Your task to perform on an android device: Go to calendar. Show me events next week Image 0: 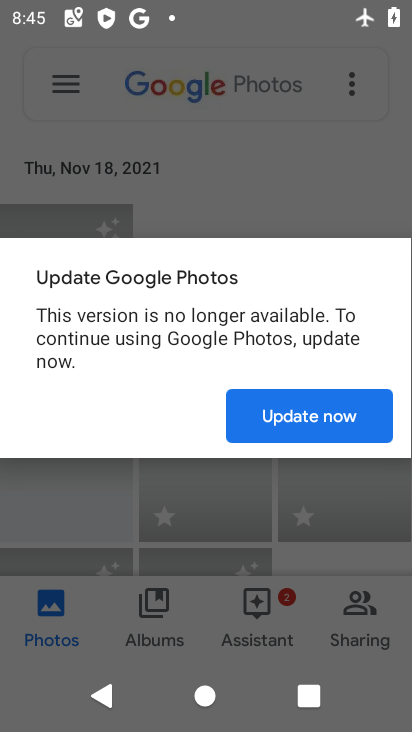
Step 0: press home button
Your task to perform on an android device: Go to calendar. Show me events next week Image 1: 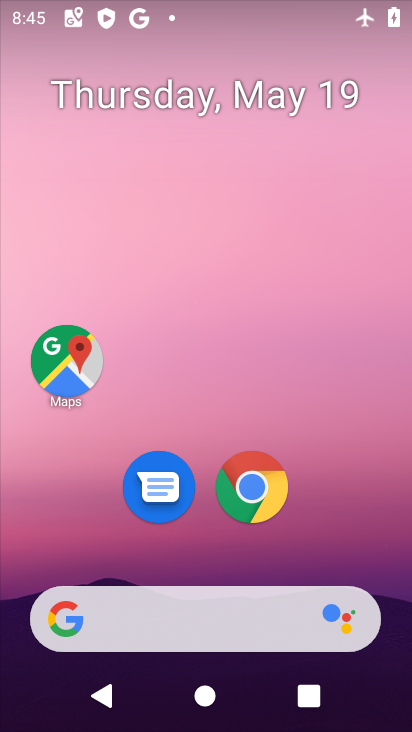
Step 1: drag from (216, 553) to (357, 4)
Your task to perform on an android device: Go to calendar. Show me events next week Image 2: 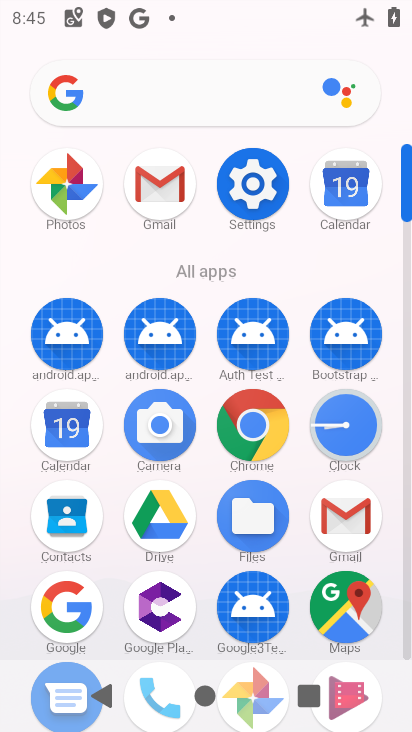
Step 2: click (56, 430)
Your task to perform on an android device: Go to calendar. Show me events next week Image 3: 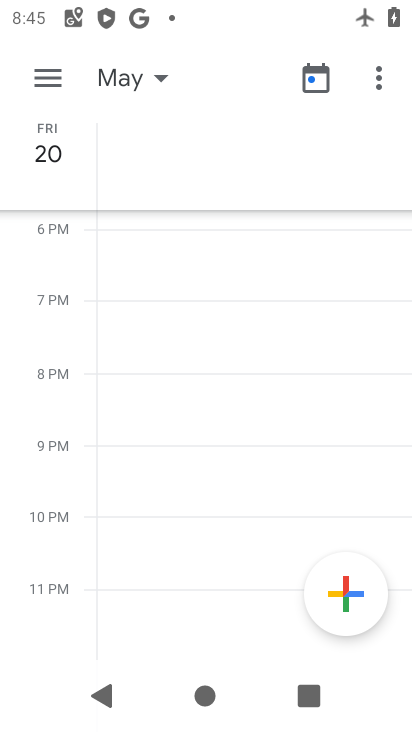
Step 3: click (42, 80)
Your task to perform on an android device: Go to calendar. Show me events next week Image 4: 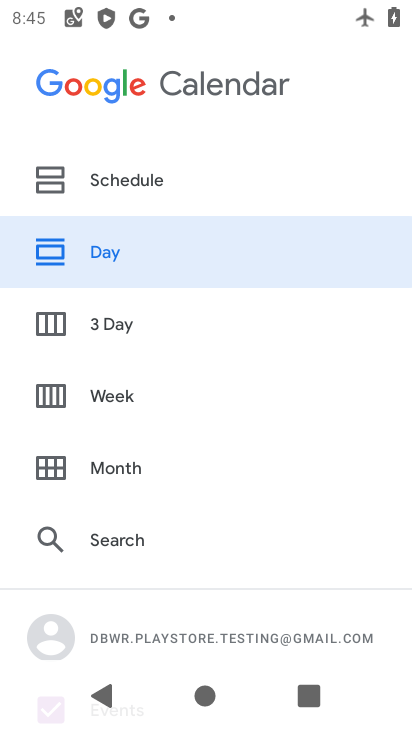
Step 4: click (121, 385)
Your task to perform on an android device: Go to calendar. Show me events next week Image 5: 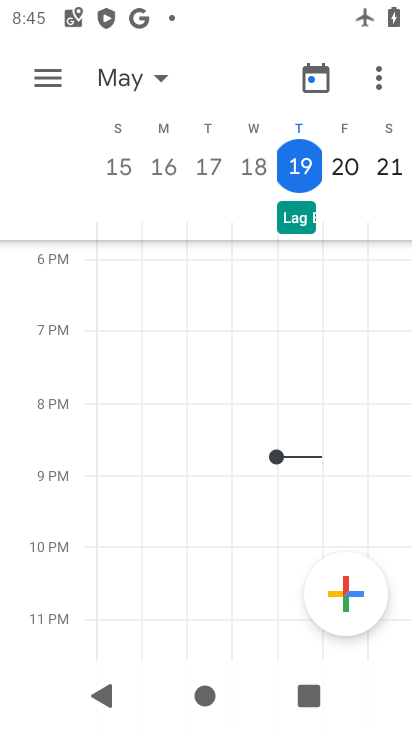
Step 5: task complete